Your task to perform on an android device: Open battery settings Image 0: 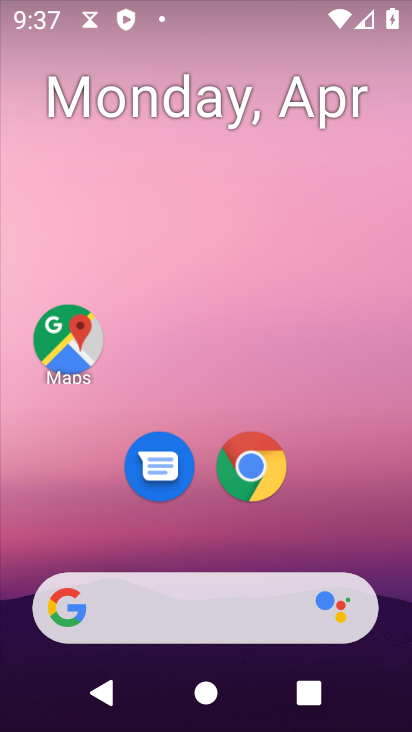
Step 0: drag from (306, 499) to (313, 217)
Your task to perform on an android device: Open battery settings Image 1: 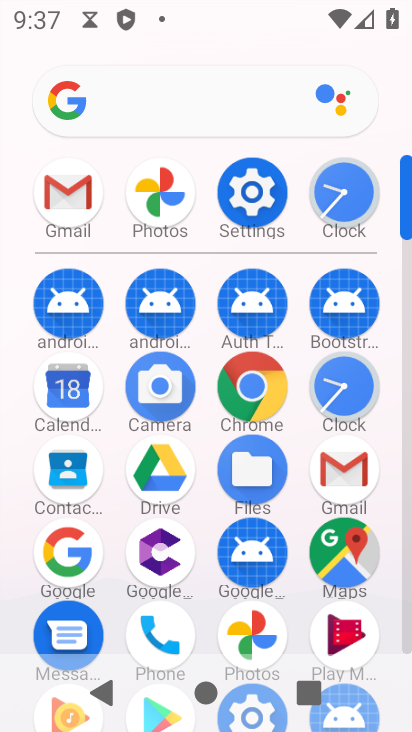
Step 1: click (268, 198)
Your task to perform on an android device: Open battery settings Image 2: 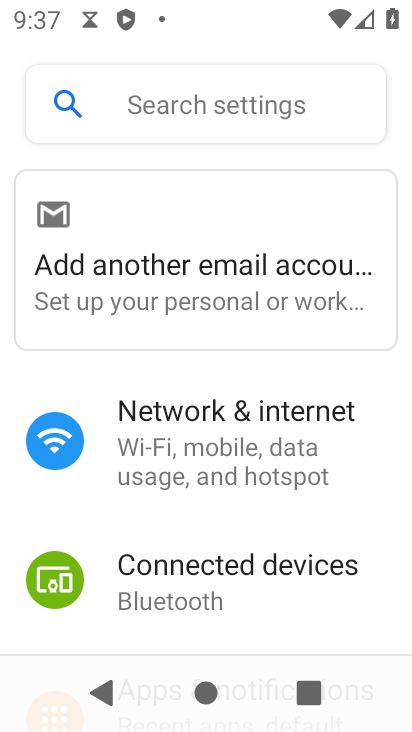
Step 2: drag from (284, 525) to (288, 379)
Your task to perform on an android device: Open battery settings Image 3: 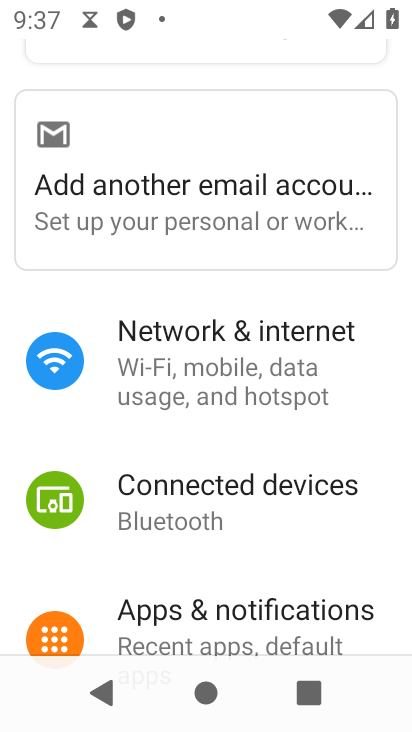
Step 3: drag from (246, 551) to (275, 439)
Your task to perform on an android device: Open battery settings Image 4: 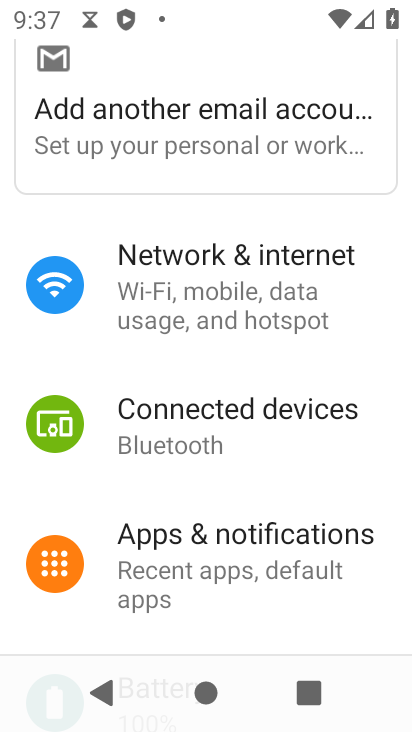
Step 4: drag from (214, 587) to (243, 470)
Your task to perform on an android device: Open battery settings Image 5: 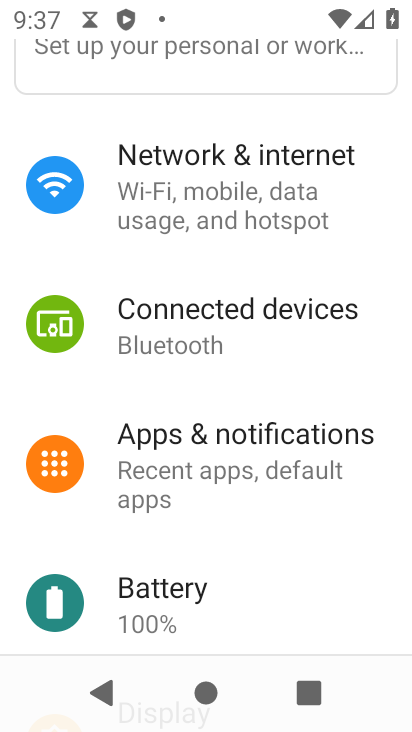
Step 5: click (184, 591)
Your task to perform on an android device: Open battery settings Image 6: 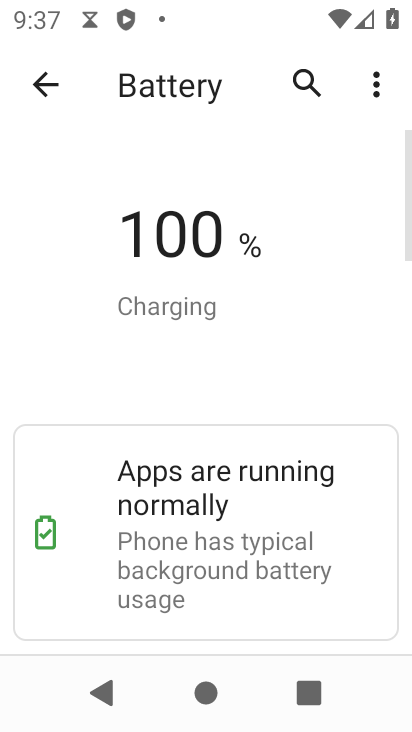
Step 6: task complete